Your task to perform on an android device: Open Yahoo.com Image 0: 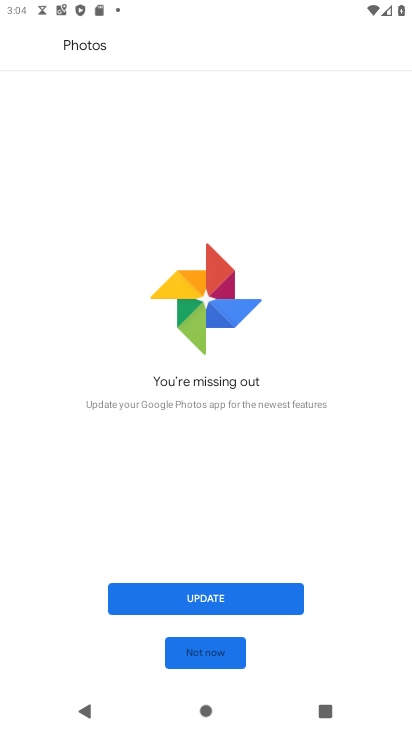
Step 0: press home button
Your task to perform on an android device: Open Yahoo.com Image 1: 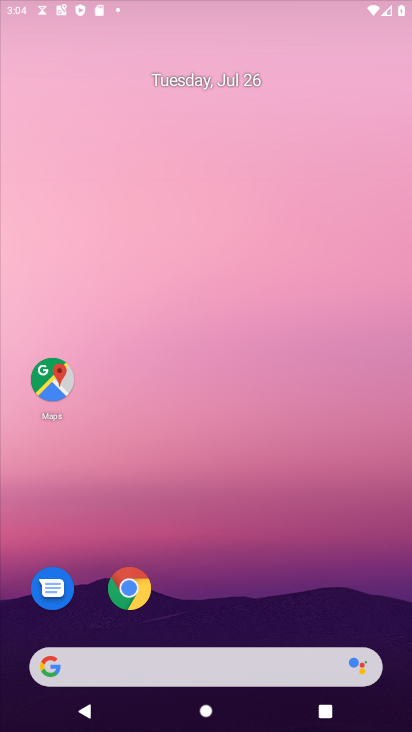
Step 1: drag from (212, 538) to (284, 69)
Your task to perform on an android device: Open Yahoo.com Image 2: 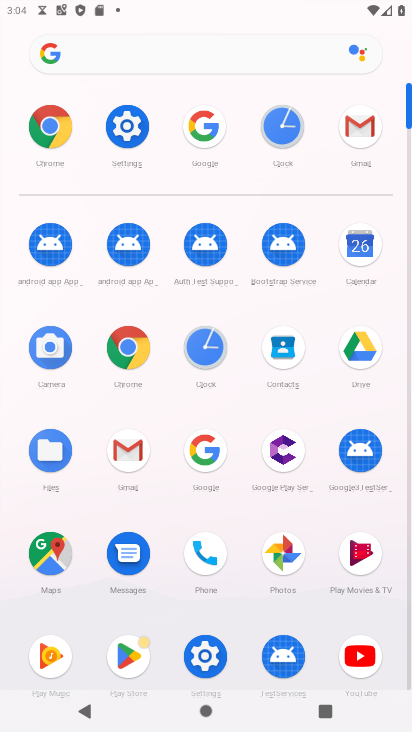
Step 2: click (49, 118)
Your task to perform on an android device: Open Yahoo.com Image 3: 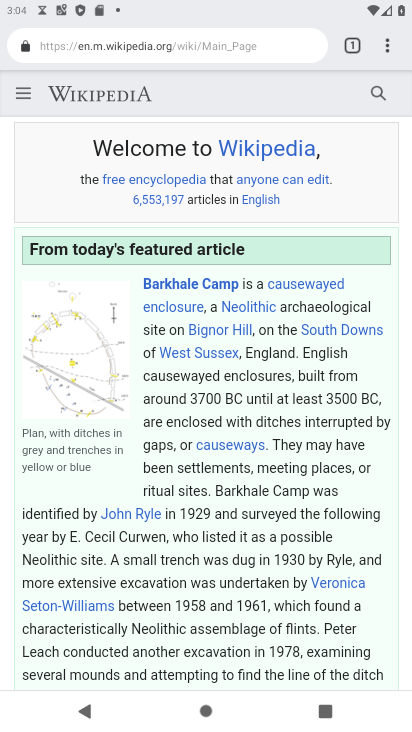
Step 3: click (280, 40)
Your task to perform on an android device: Open Yahoo.com Image 4: 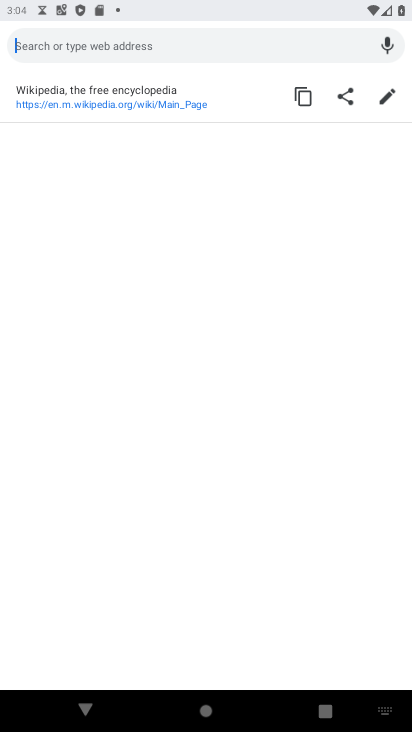
Step 4: type "Yahoo.com"
Your task to perform on an android device: Open Yahoo.com Image 5: 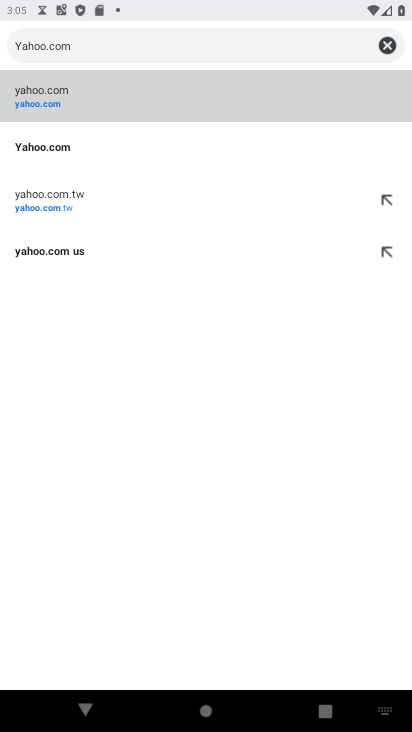
Step 5: click (81, 138)
Your task to perform on an android device: Open Yahoo.com Image 6: 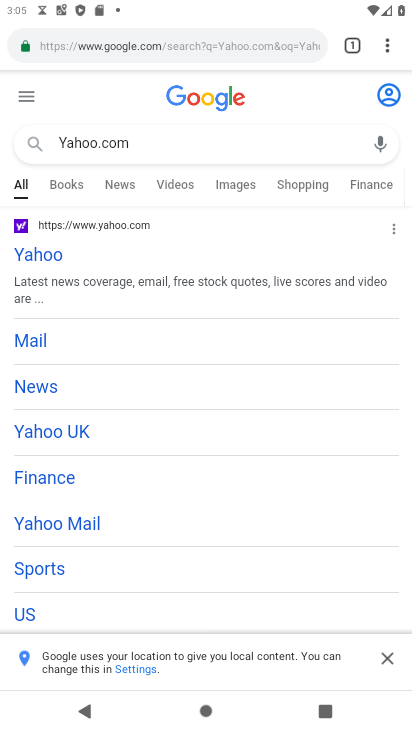
Step 6: click (51, 243)
Your task to perform on an android device: Open Yahoo.com Image 7: 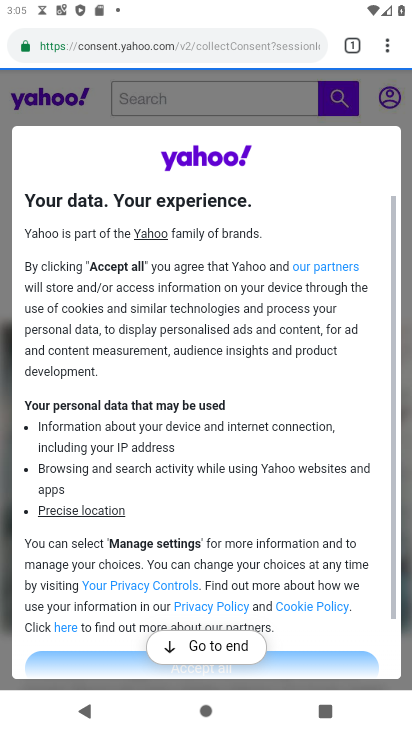
Step 7: task complete